Your task to perform on an android device: change the clock style Image 0: 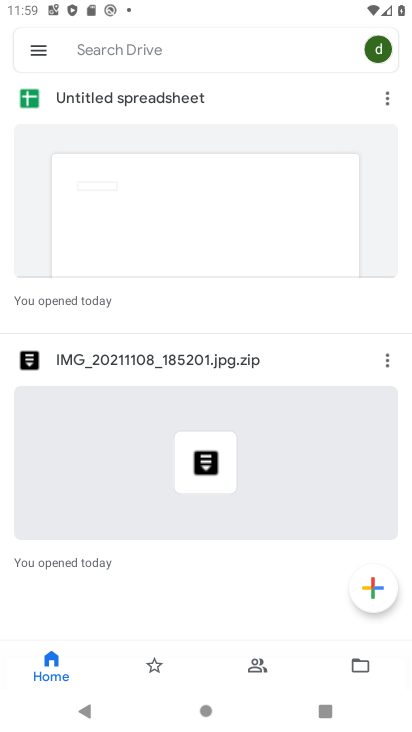
Step 0: press home button
Your task to perform on an android device: change the clock style Image 1: 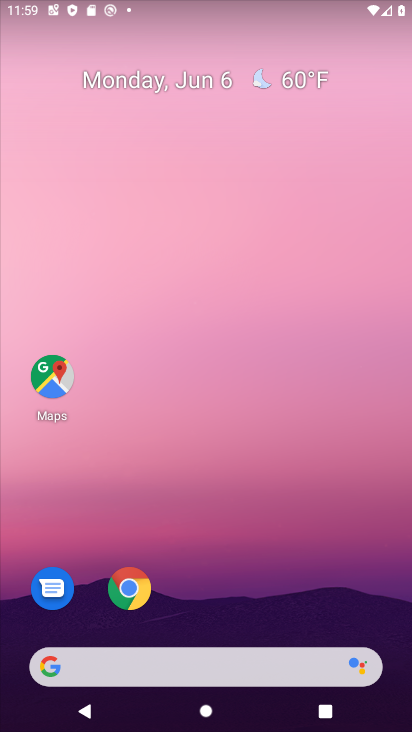
Step 1: drag from (132, 704) to (265, 5)
Your task to perform on an android device: change the clock style Image 2: 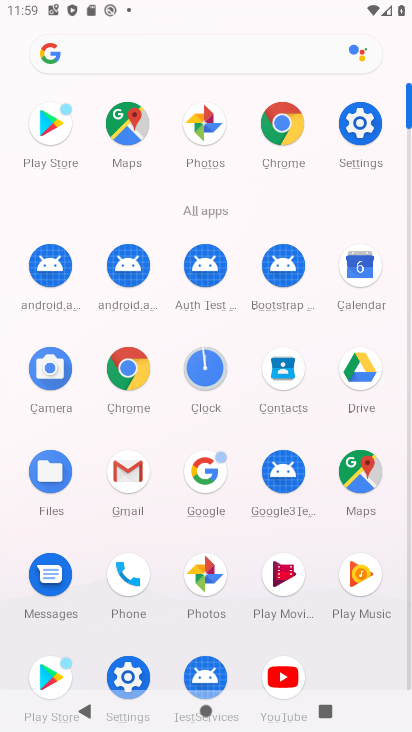
Step 2: click (209, 374)
Your task to perform on an android device: change the clock style Image 3: 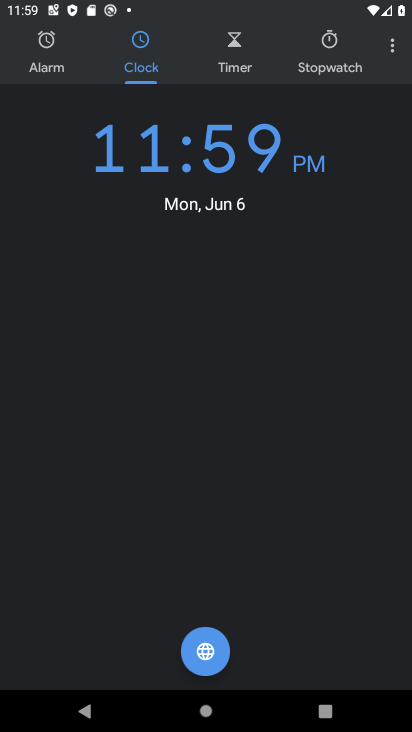
Step 3: click (387, 44)
Your task to perform on an android device: change the clock style Image 4: 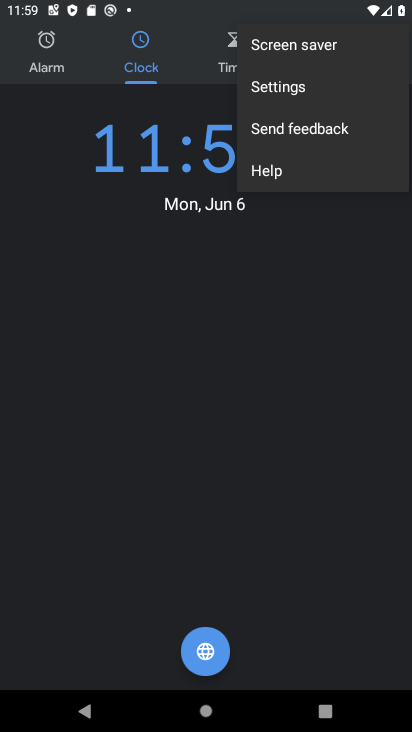
Step 4: click (274, 92)
Your task to perform on an android device: change the clock style Image 5: 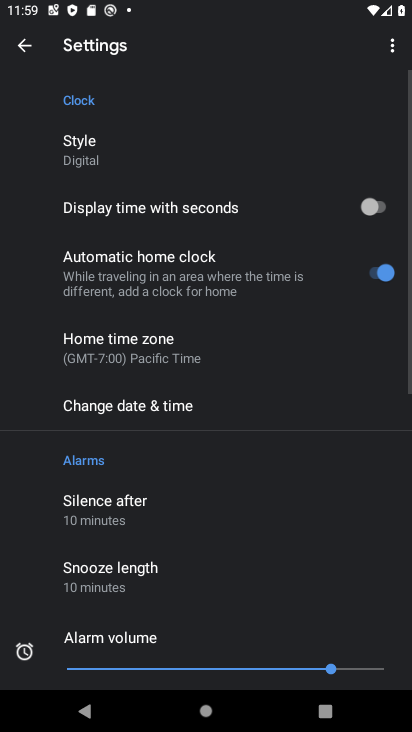
Step 5: click (121, 149)
Your task to perform on an android device: change the clock style Image 6: 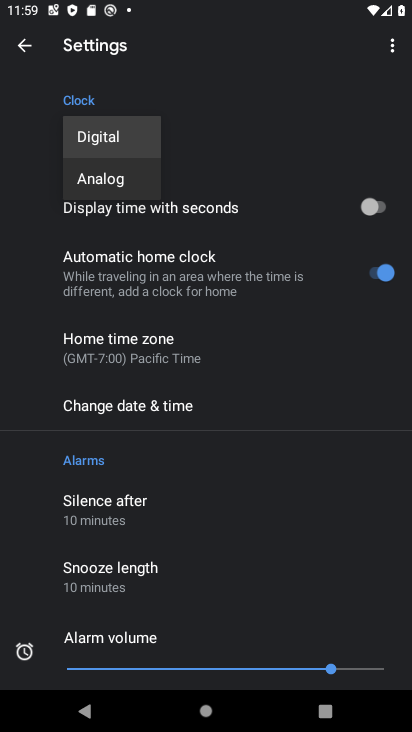
Step 6: click (124, 184)
Your task to perform on an android device: change the clock style Image 7: 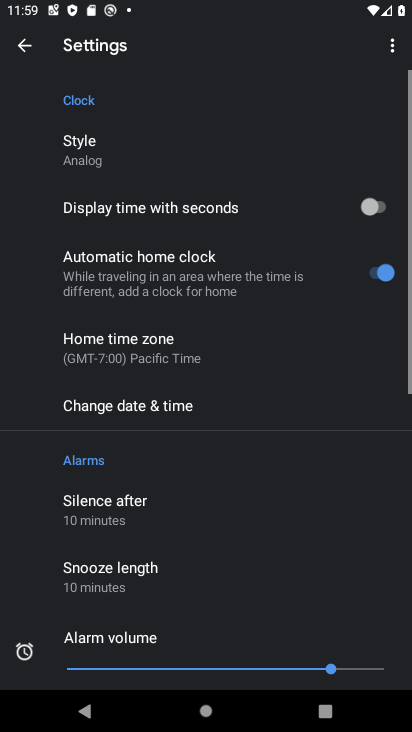
Step 7: task complete